Your task to perform on an android device: Open the phone app and click the voicemail tab. Image 0: 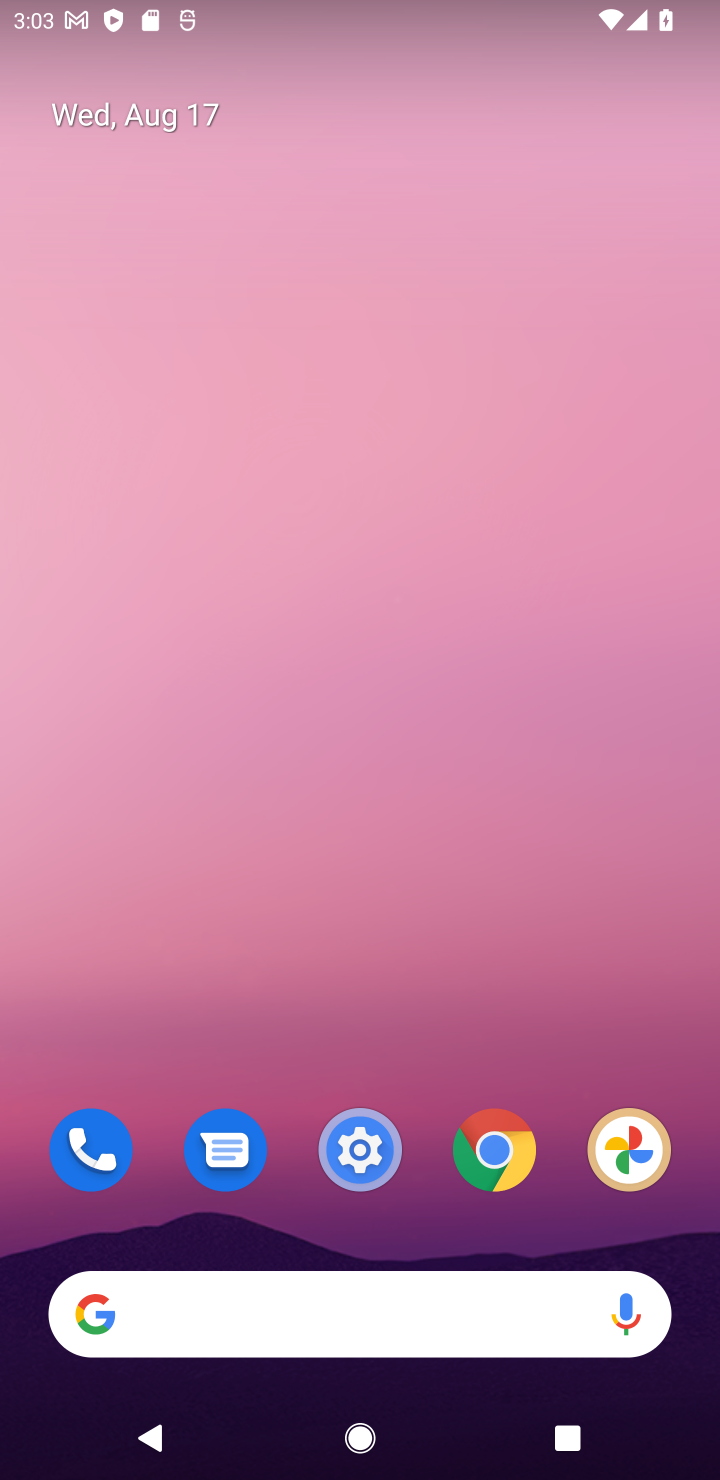
Step 0: drag from (565, 1190) to (187, 125)
Your task to perform on an android device: Open the phone app and click the voicemail tab. Image 1: 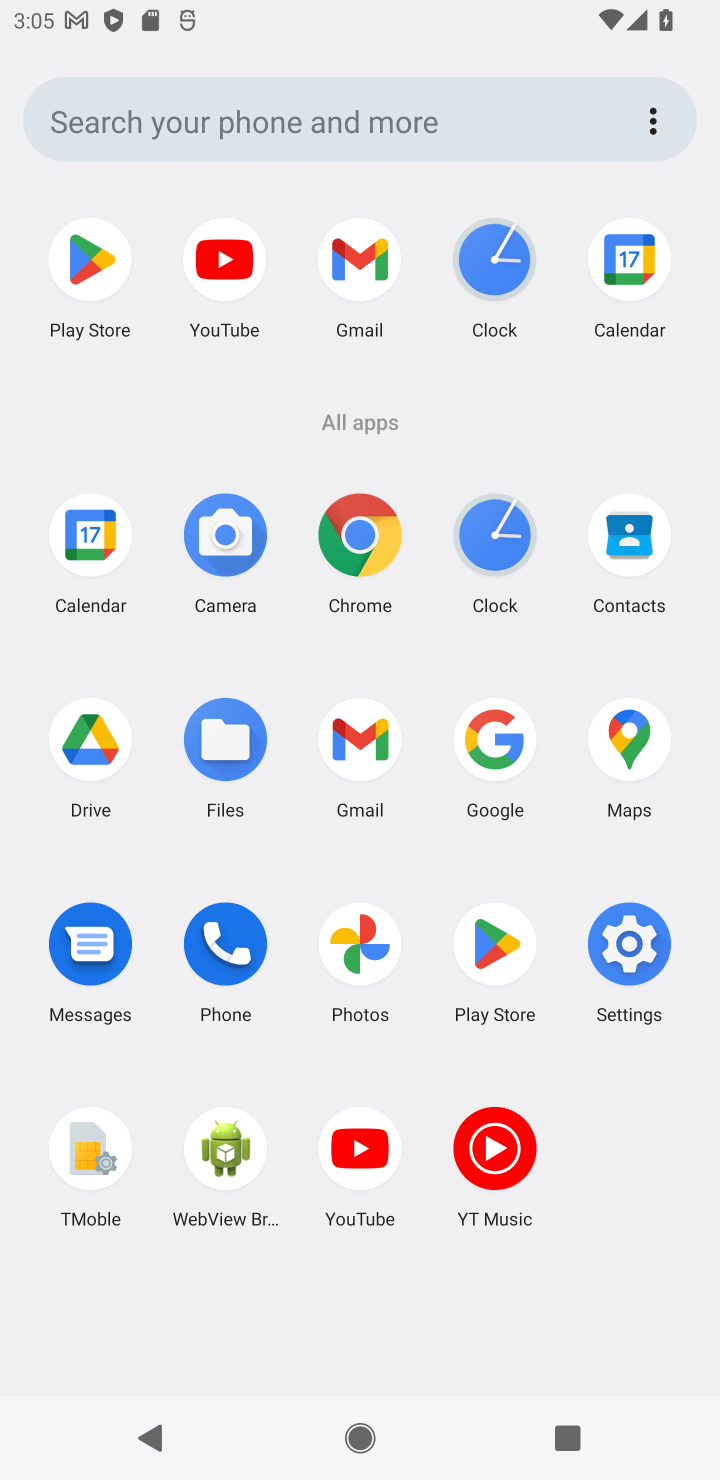
Step 1: task complete